Your task to perform on an android device: turn on data saver in the chrome app Image 0: 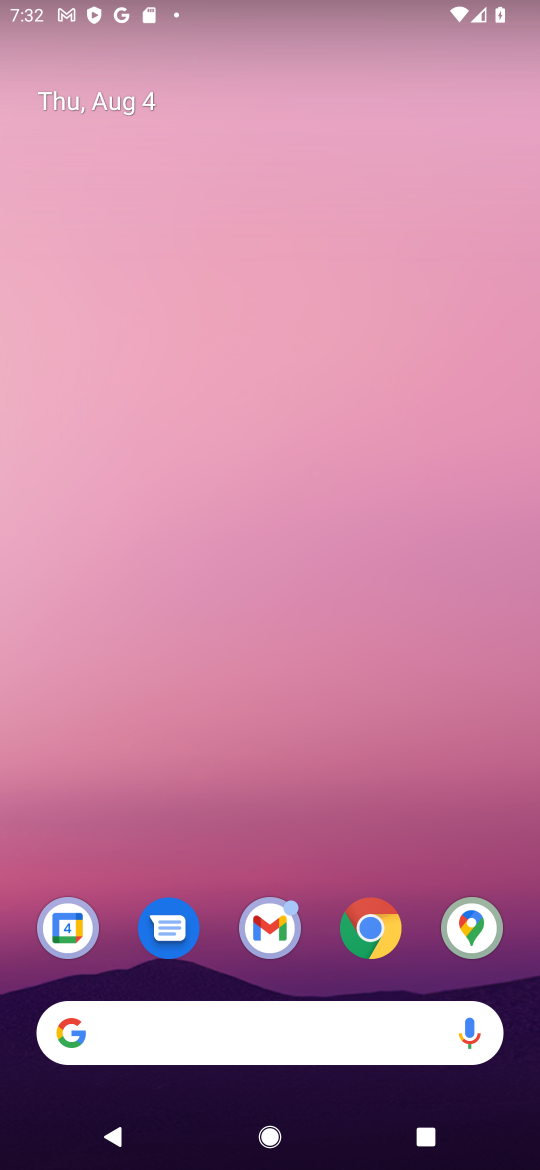
Step 0: click (358, 922)
Your task to perform on an android device: turn on data saver in the chrome app Image 1: 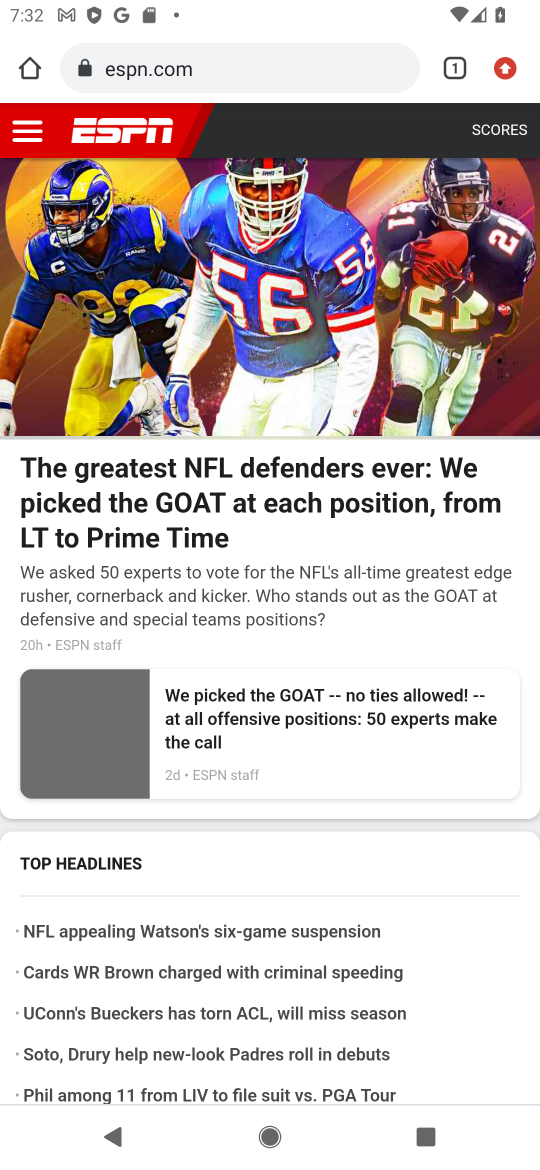
Step 1: click (502, 61)
Your task to perform on an android device: turn on data saver in the chrome app Image 2: 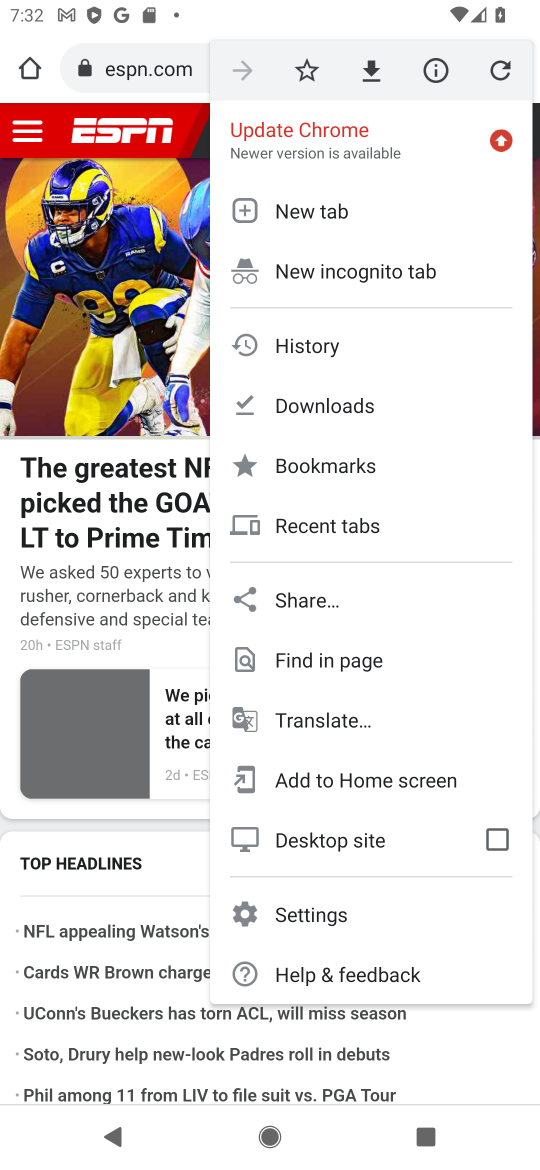
Step 2: click (313, 914)
Your task to perform on an android device: turn on data saver in the chrome app Image 3: 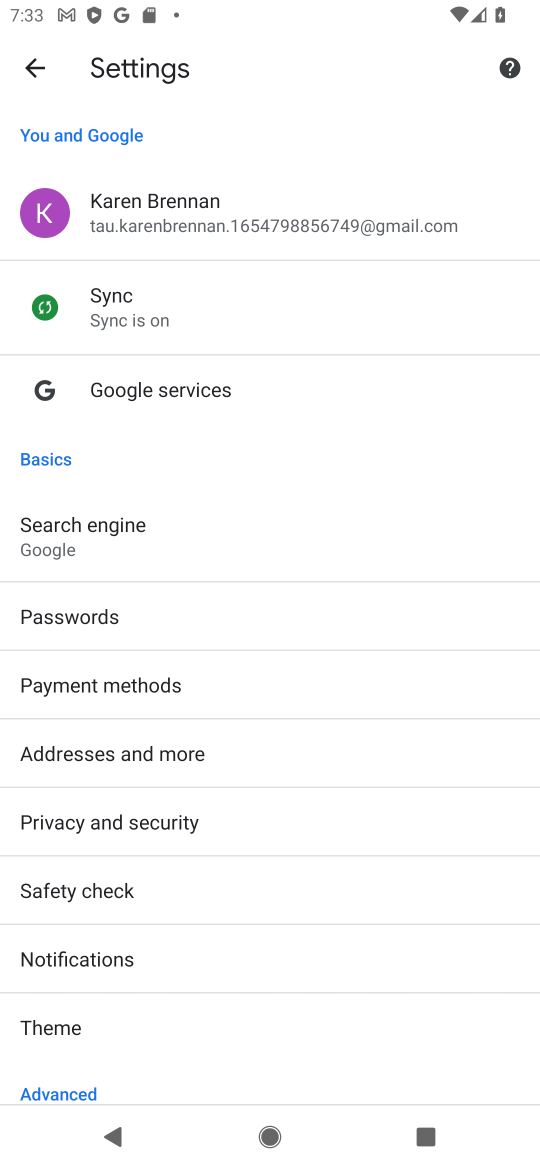
Step 3: drag from (109, 976) to (258, 402)
Your task to perform on an android device: turn on data saver in the chrome app Image 4: 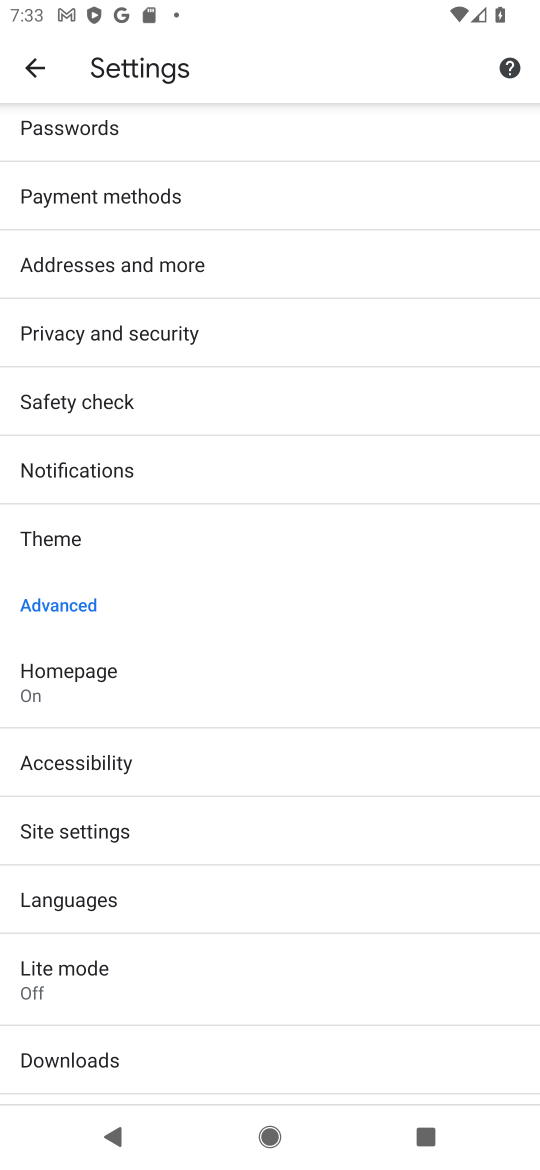
Step 4: click (69, 981)
Your task to perform on an android device: turn on data saver in the chrome app Image 5: 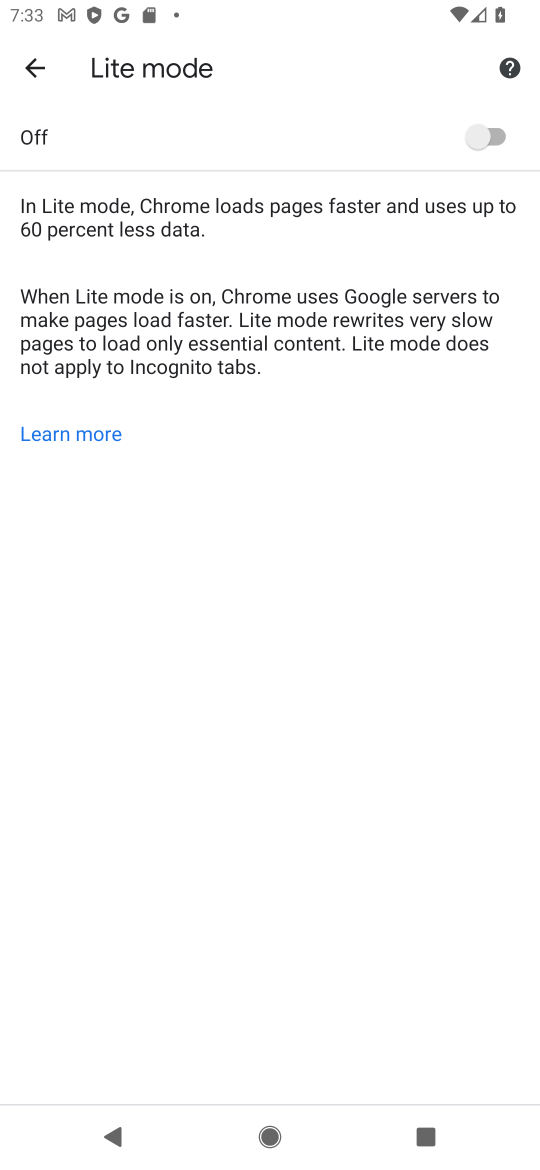
Step 5: click (491, 135)
Your task to perform on an android device: turn on data saver in the chrome app Image 6: 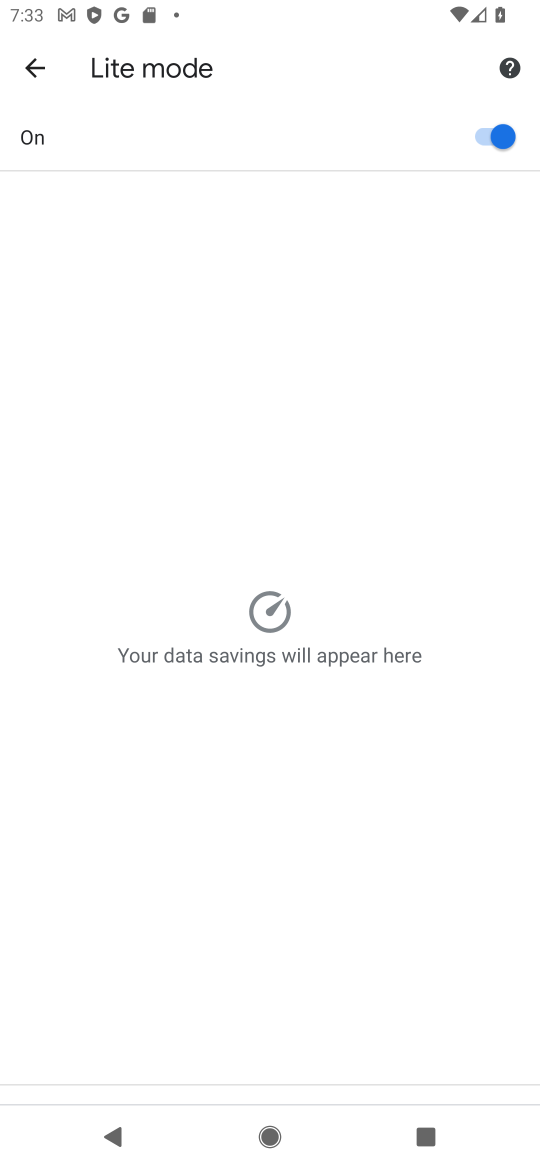
Step 6: task complete